Your task to perform on an android device: Open Youtube and go to "Your channel" Image 0: 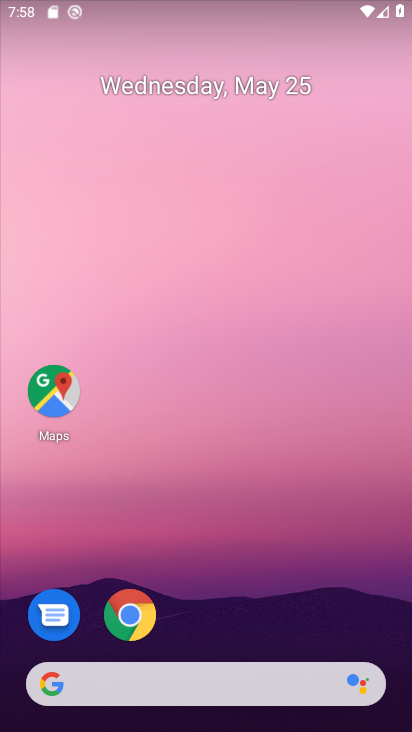
Step 0: drag from (244, 585) to (220, 16)
Your task to perform on an android device: Open Youtube and go to "Your channel" Image 1: 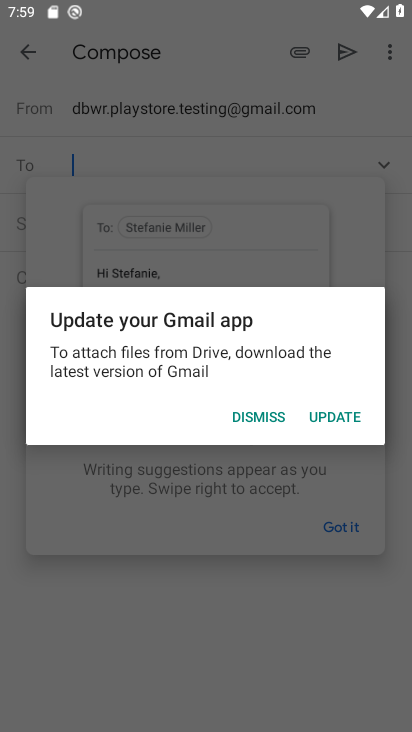
Step 1: press back button
Your task to perform on an android device: Open Youtube and go to "Your channel" Image 2: 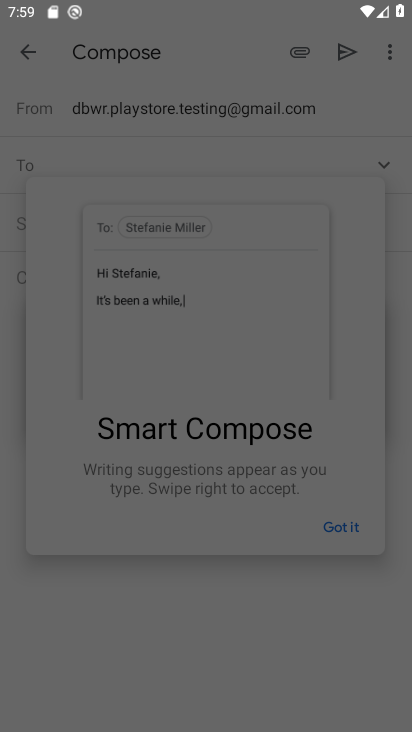
Step 2: press home button
Your task to perform on an android device: Open Youtube and go to "Your channel" Image 3: 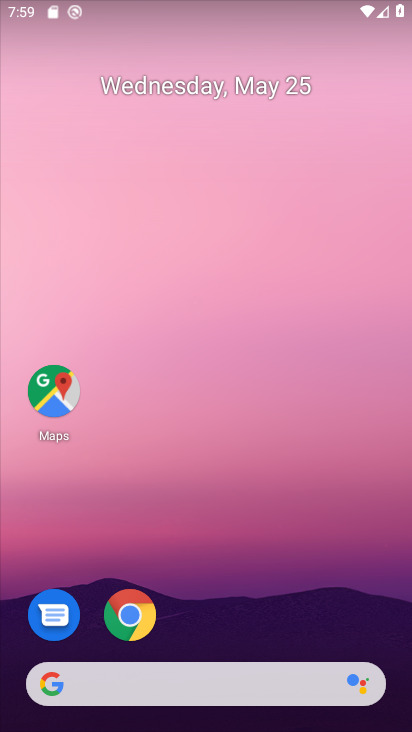
Step 3: drag from (219, 603) to (216, 21)
Your task to perform on an android device: Open Youtube and go to "Your channel" Image 4: 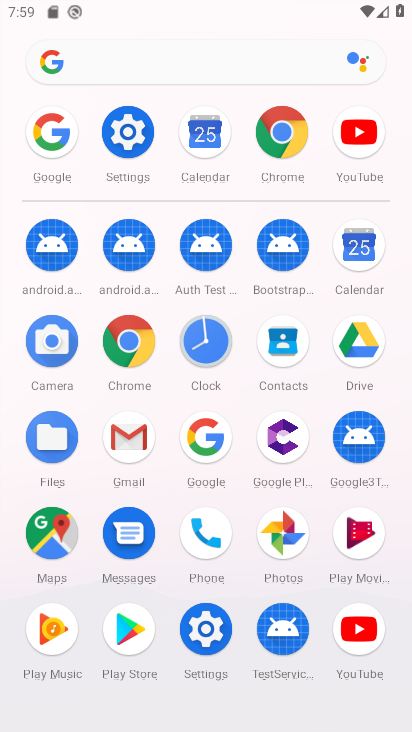
Step 4: click (359, 630)
Your task to perform on an android device: Open Youtube and go to "Your channel" Image 5: 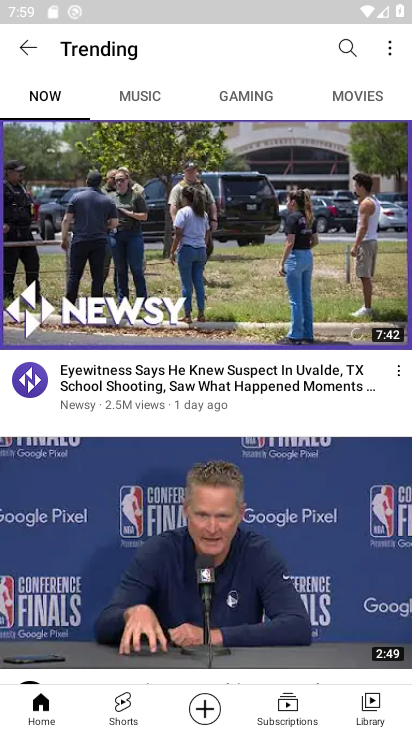
Step 5: click (354, 713)
Your task to perform on an android device: Open Youtube and go to "Your channel" Image 6: 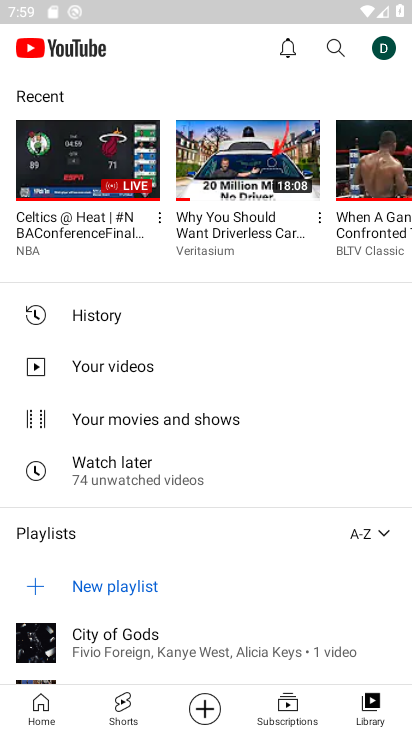
Step 6: click (117, 315)
Your task to perform on an android device: Open Youtube and go to "Your channel" Image 7: 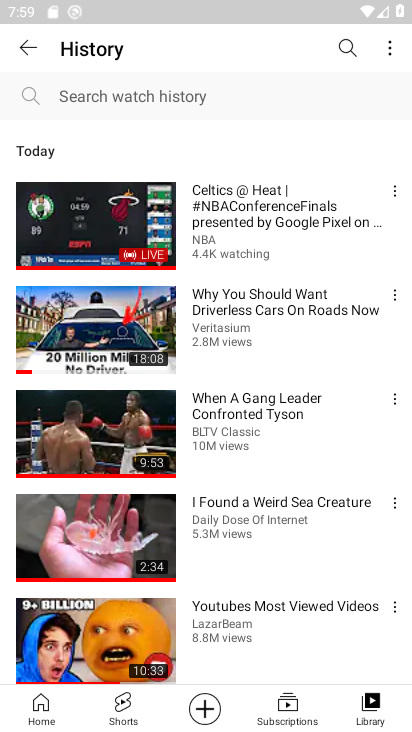
Step 7: task complete